Your task to perform on an android device: check google app version Image 0: 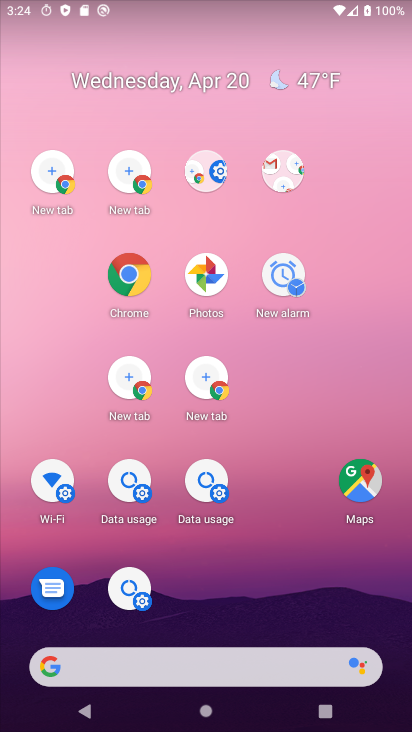
Step 0: drag from (264, 462) to (169, 100)
Your task to perform on an android device: check google app version Image 1: 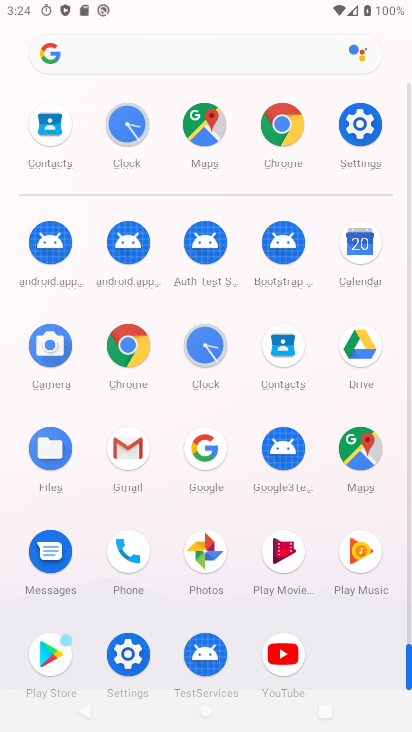
Step 1: click (212, 460)
Your task to perform on an android device: check google app version Image 2: 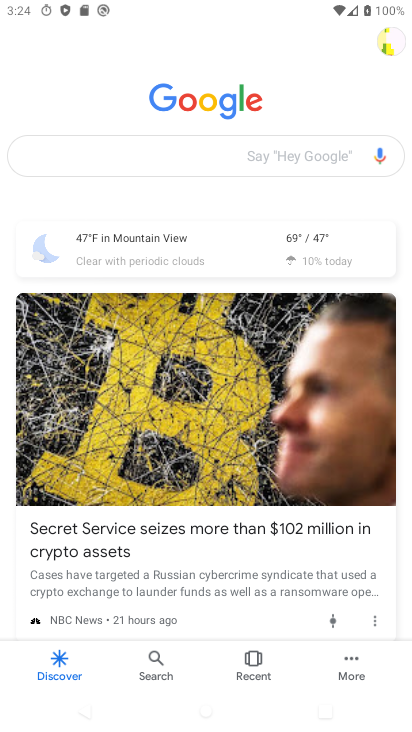
Step 2: click (348, 665)
Your task to perform on an android device: check google app version Image 3: 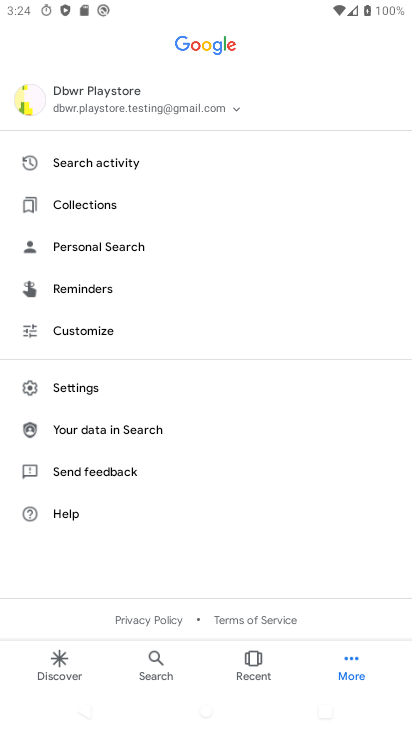
Step 3: click (77, 386)
Your task to perform on an android device: check google app version Image 4: 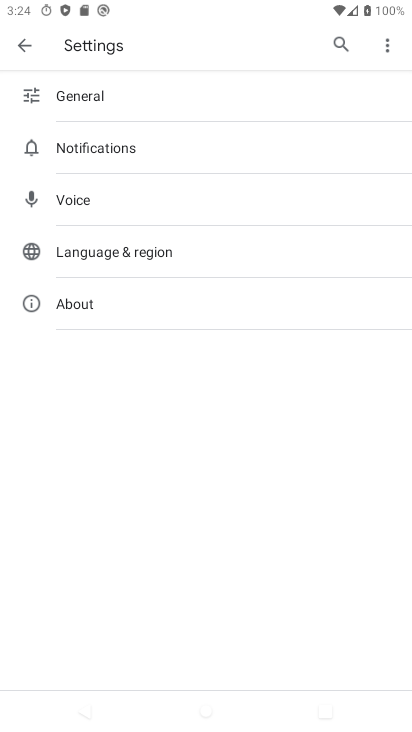
Step 4: click (69, 298)
Your task to perform on an android device: check google app version Image 5: 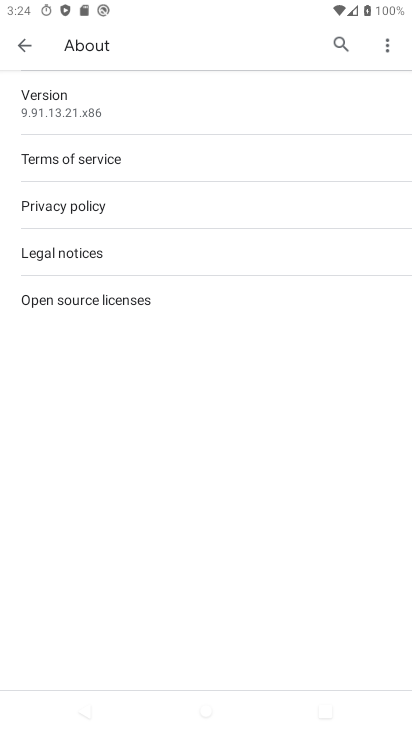
Step 5: task complete